Your task to perform on an android device: turn pop-ups off in chrome Image 0: 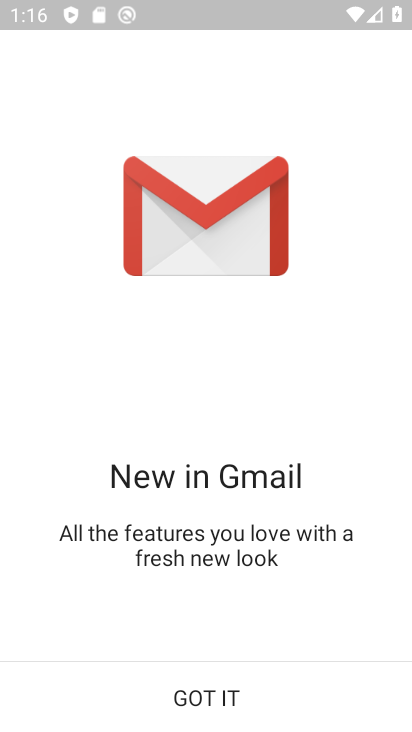
Step 0: press home button
Your task to perform on an android device: turn pop-ups off in chrome Image 1: 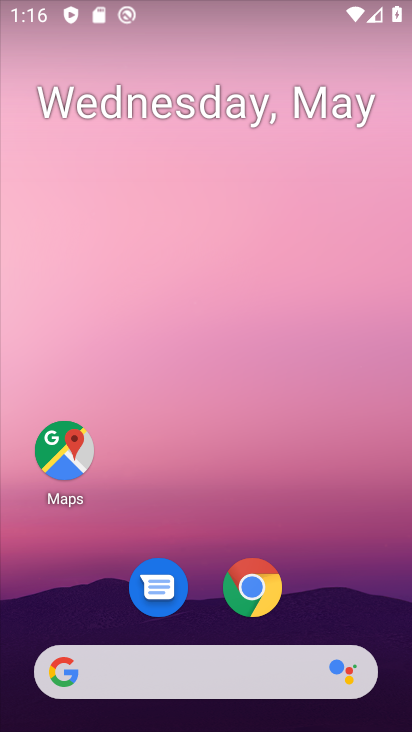
Step 1: click (260, 566)
Your task to perform on an android device: turn pop-ups off in chrome Image 2: 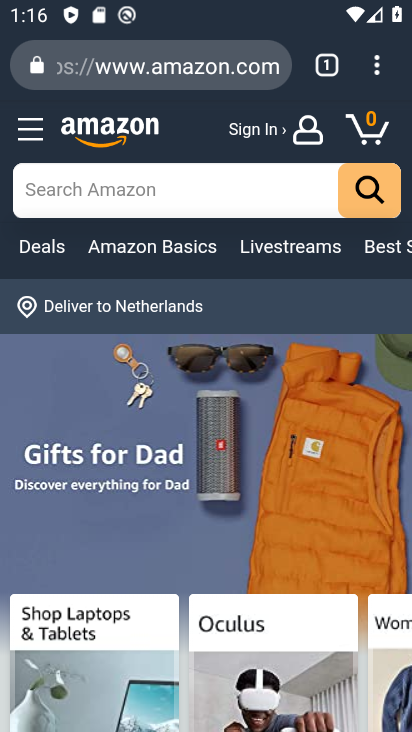
Step 2: click (380, 57)
Your task to perform on an android device: turn pop-ups off in chrome Image 3: 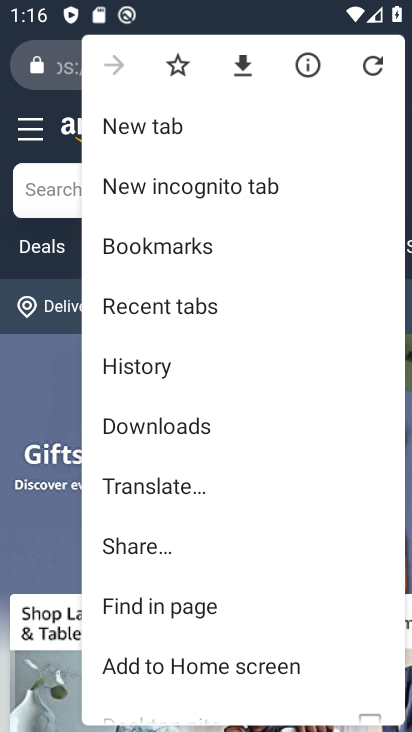
Step 3: drag from (181, 599) to (164, 239)
Your task to perform on an android device: turn pop-ups off in chrome Image 4: 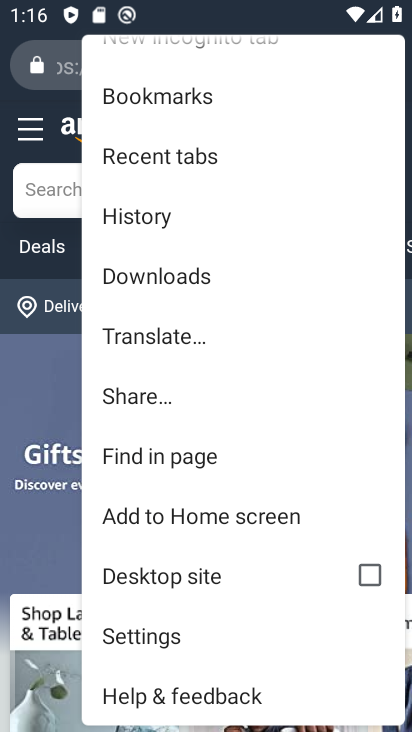
Step 4: click (180, 633)
Your task to perform on an android device: turn pop-ups off in chrome Image 5: 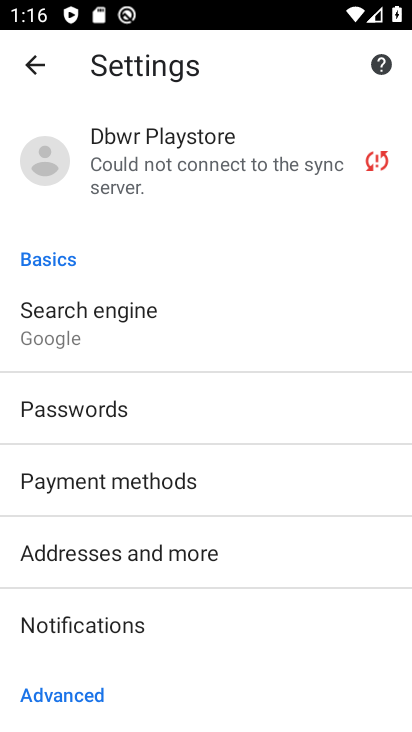
Step 5: drag from (157, 629) to (133, 115)
Your task to perform on an android device: turn pop-ups off in chrome Image 6: 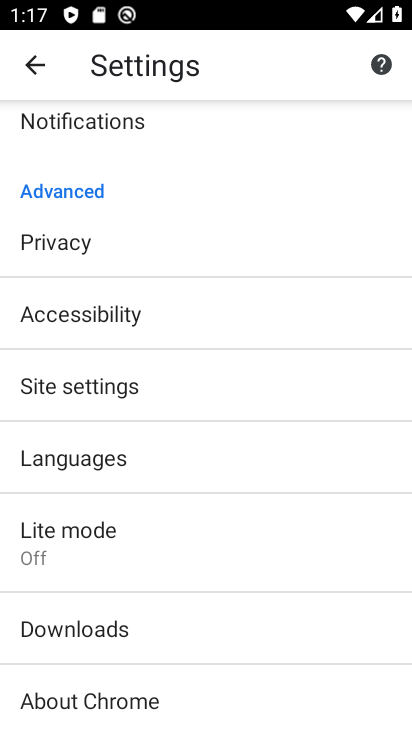
Step 6: click (85, 389)
Your task to perform on an android device: turn pop-ups off in chrome Image 7: 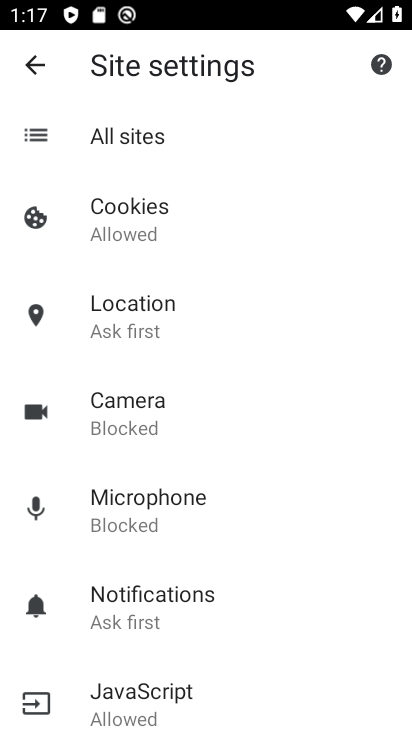
Step 7: task complete